Your task to perform on an android device: View the shopping cart on amazon.com. Image 0: 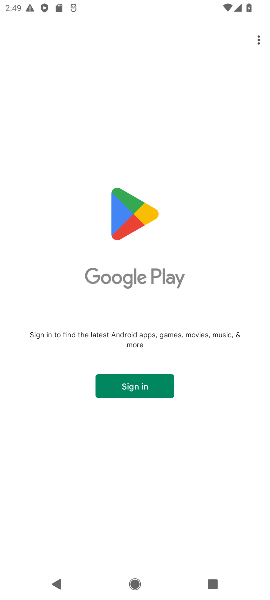
Step 0: press home button
Your task to perform on an android device: View the shopping cart on amazon.com. Image 1: 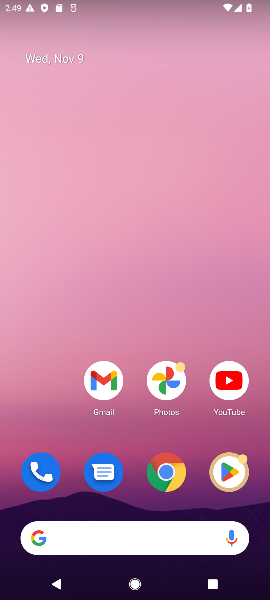
Step 1: click (76, 540)
Your task to perform on an android device: View the shopping cart on amazon.com. Image 2: 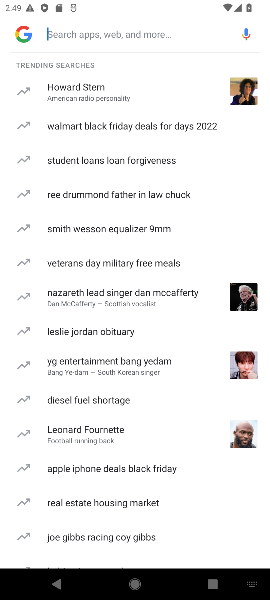
Step 2: type "amazon"
Your task to perform on an android device: View the shopping cart on amazon.com. Image 3: 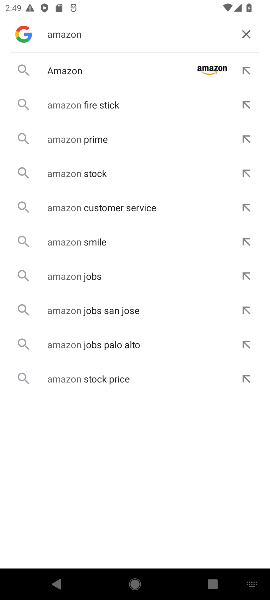
Step 3: click (84, 69)
Your task to perform on an android device: View the shopping cart on amazon.com. Image 4: 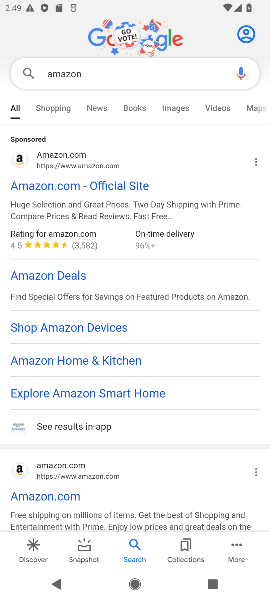
Step 4: click (46, 180)
Your task to perform on an android device: View the shopping cart on amazon.com. Image 5: 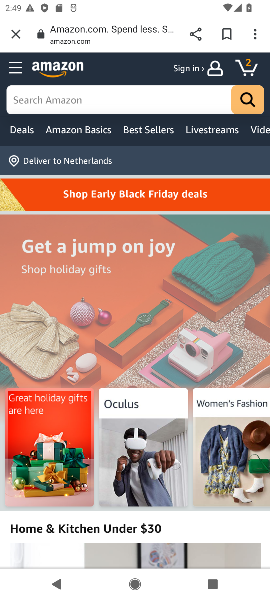
Step 5: task complete